Your task to perform on an android device: Open wifi settings Image 0: 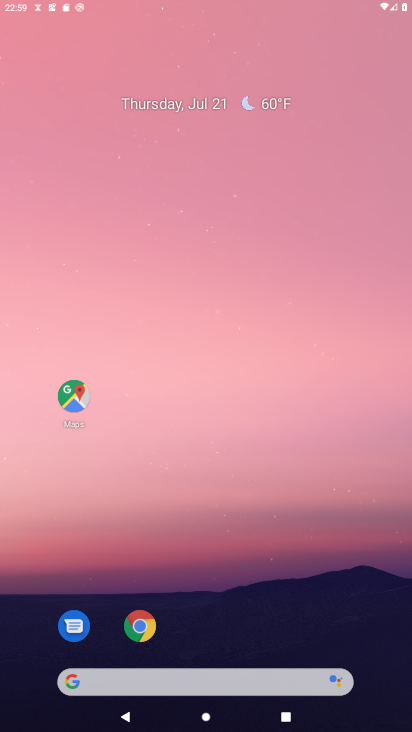
Step 0: drag from (198, 509) to (206, 164)
Your task to perform on an android device: Open wifi settings Image 1: 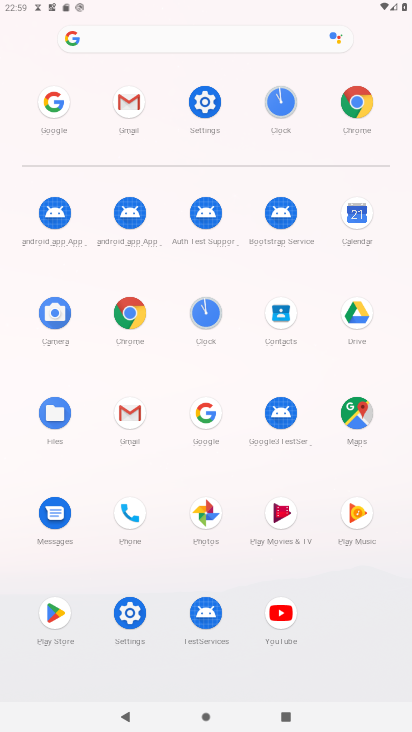
Step 1: click (203, 103)
Your task to perform on an android device: Open wifi settings Image 2: 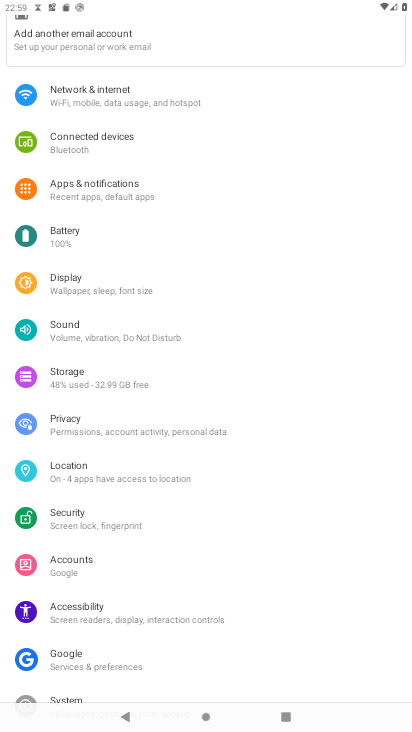
Step 2: click (109, 86)
Your task to perform on an android device: Open wifi settings Image 3: 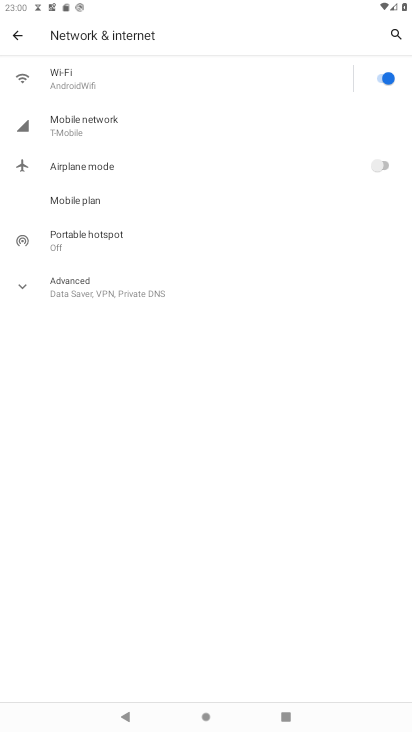
Step 3: click (101, 80)
Your task to perform on an android device: Open wifi settings Image 4: 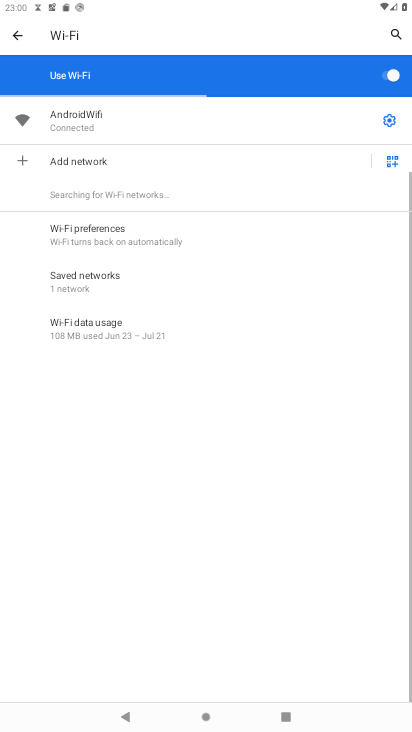
Step 4: task complete